Your task to perform on an android device: turn off improve location accuracy Image 0: 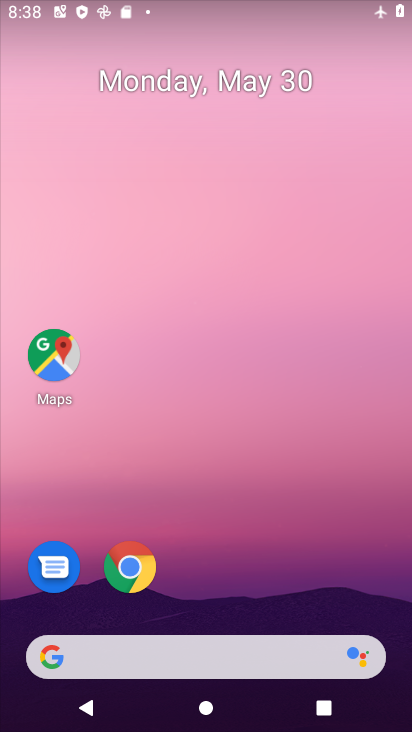
Step 0: drag from (279, 611) to (196, 108)
Your task to perform on an android device: turn off improve location accuracy Image 1: 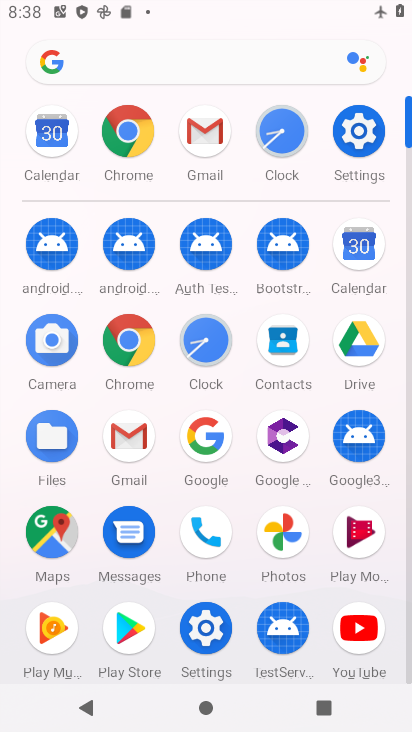
Step 1: click (352, 146)
Your task to perform on an android device: turn off improve location accuracy Image 2: 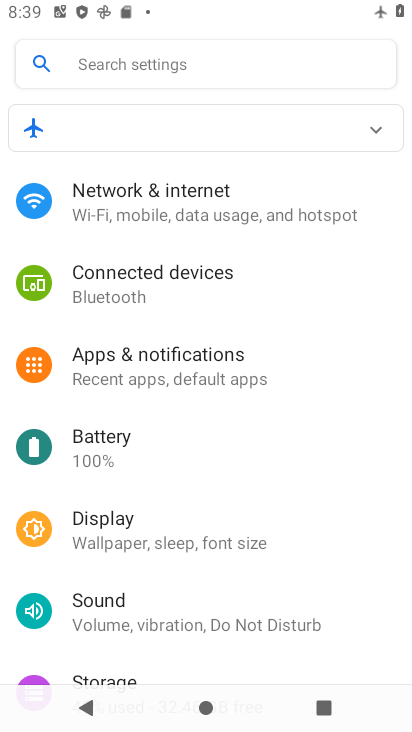
Step 2: drag from (225, 565) to (224, 355)
Your task to perform on an android device: turn off improve location accuracy Image 3: 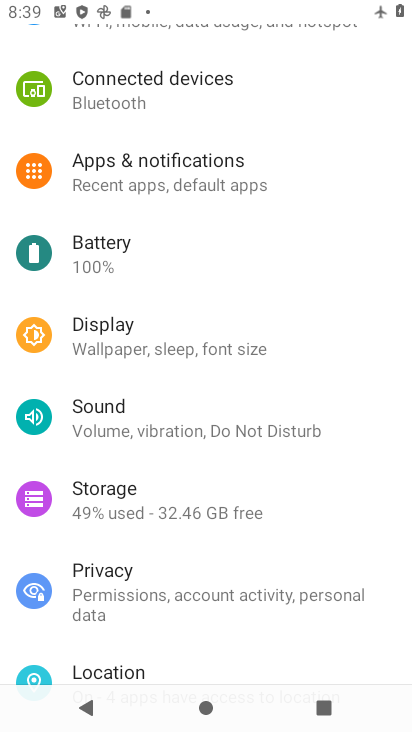
Step 3: click (169, 679)
Your task to perform on an android device: turn off improve location accuracy Image 4: 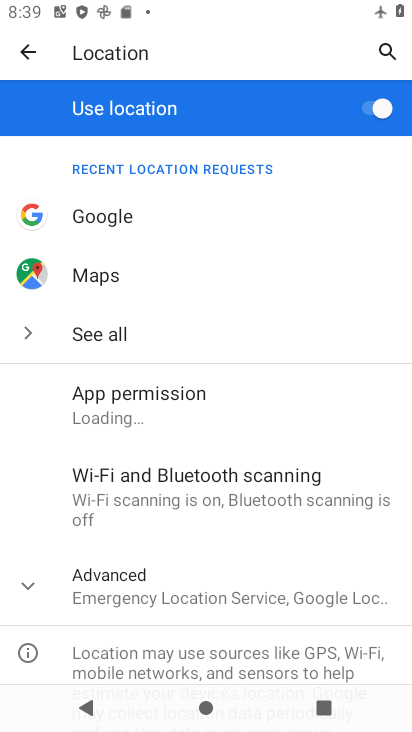
Step 4: task complete